Your task to perform on an android device: Is it going to rain this weekend? Image 0: 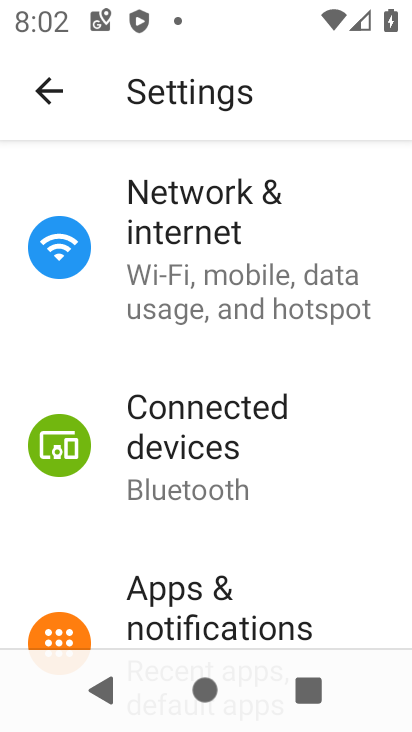
Step 0: press home button
Your task to perform on an android device: Is it going to rain this weekend? Image 1: 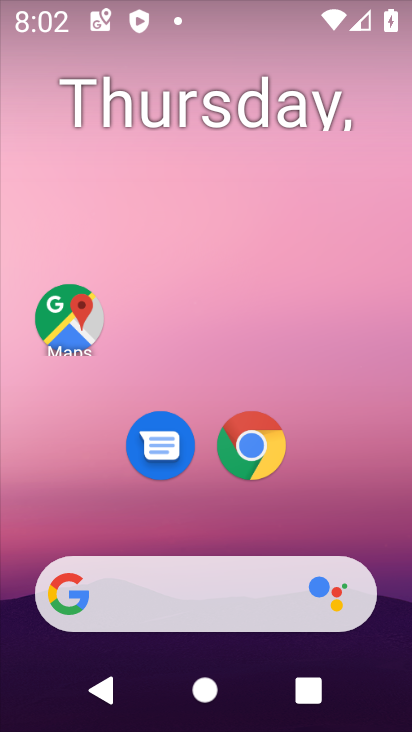
Step 1: click (266, 473)
Your task to perform on an android device: Is it going to rain this weekend? Image 2: 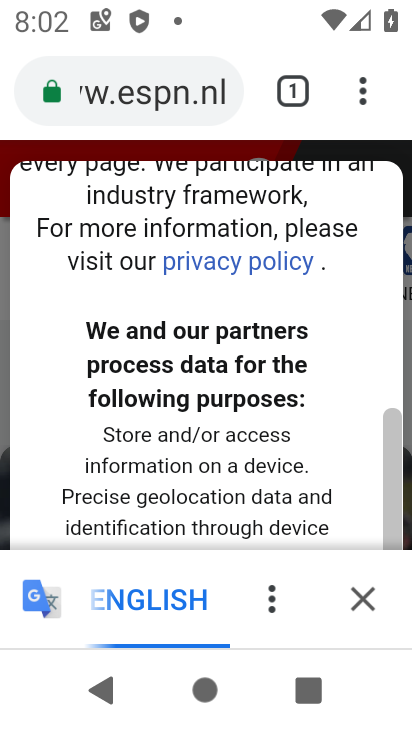
Step 2: click (151, 92)
Your task to perform on an android device: Is it going to rain this weekend? Image 3: 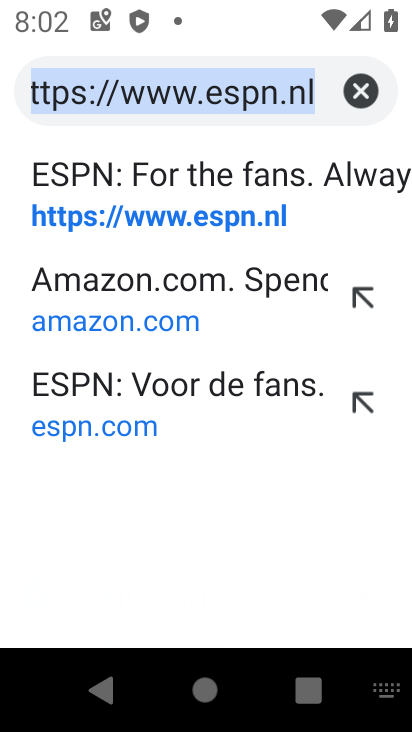
Step 3: click (371, 100)
Your task to perform on an android device: Is it going to rain this weekend? Image 4: 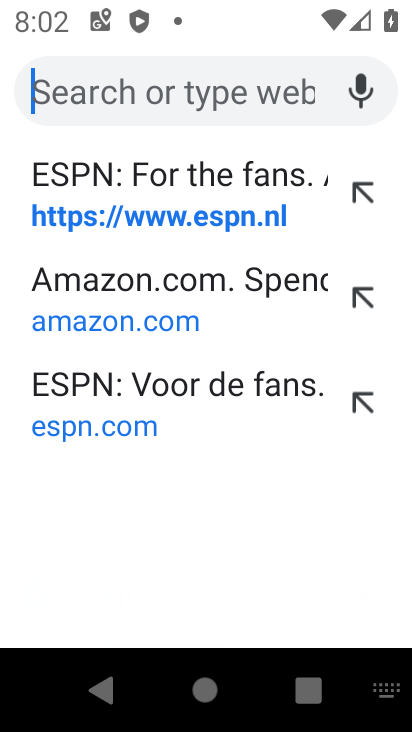
Step 4: type "is it going to be rain this weekend"
Your task to perform on an android device: Is it going to rain this weekend? Image 5: 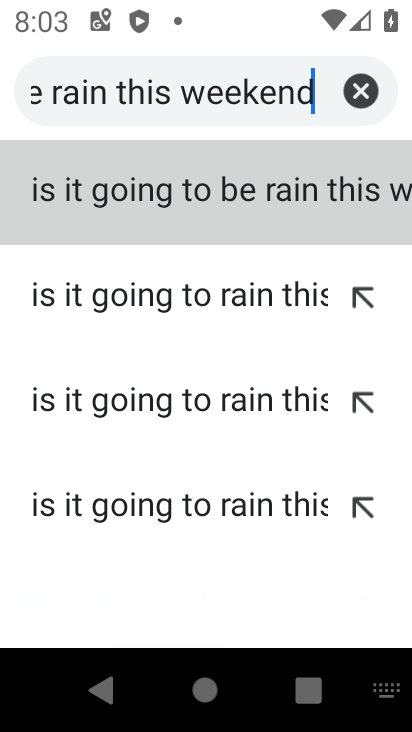
Step 5: click (247, 185)
Your task to perform on an android device: Is it going to rain this weekend? Image 6: 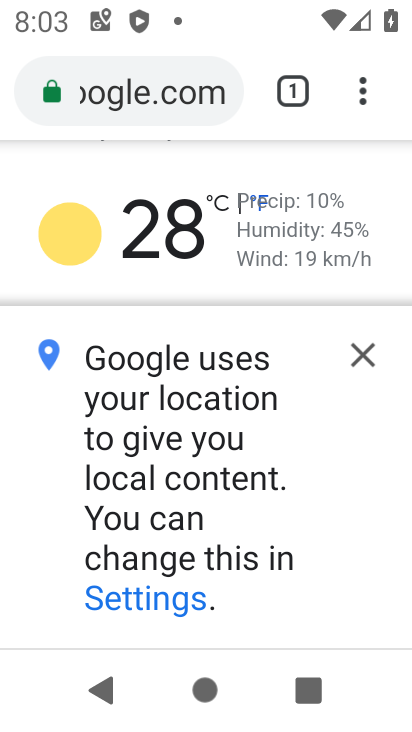
Step 6: click (367, 357)
Your task to perform on an android device: Is it going to rain this weekend? Image 7: 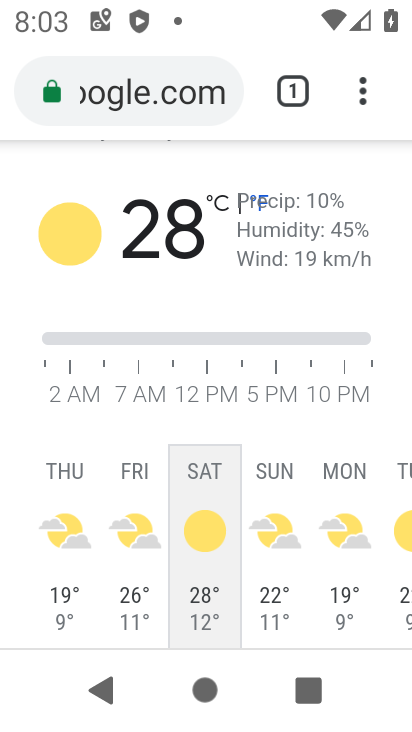
Step 7: task complete